Your task to perform on an android device: Set the phone to "Do not disturb". Image 0: 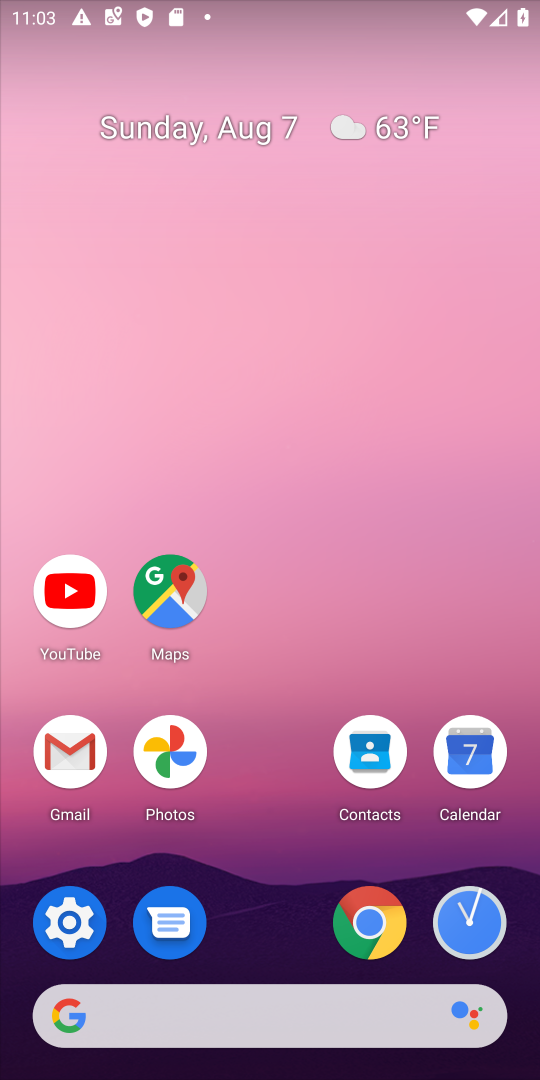
Step 0: click (72, 924)
Your task to perform on an android device: Set the phone to "Do not disturb". Image 1: 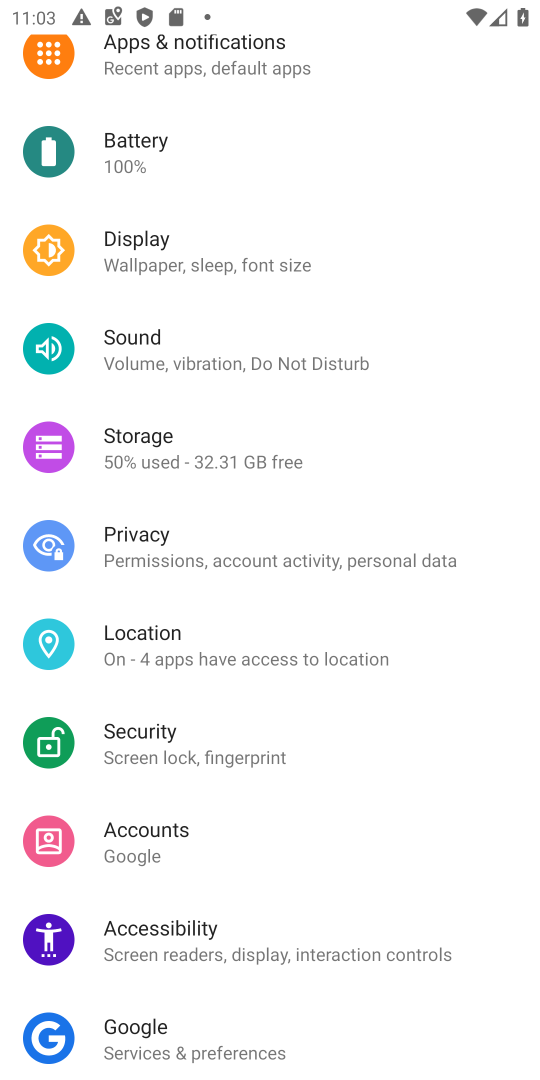
Step 1: click (130, 335)
Your task to perform on an android device: Set the phone to "Do not disturb". Image 2: 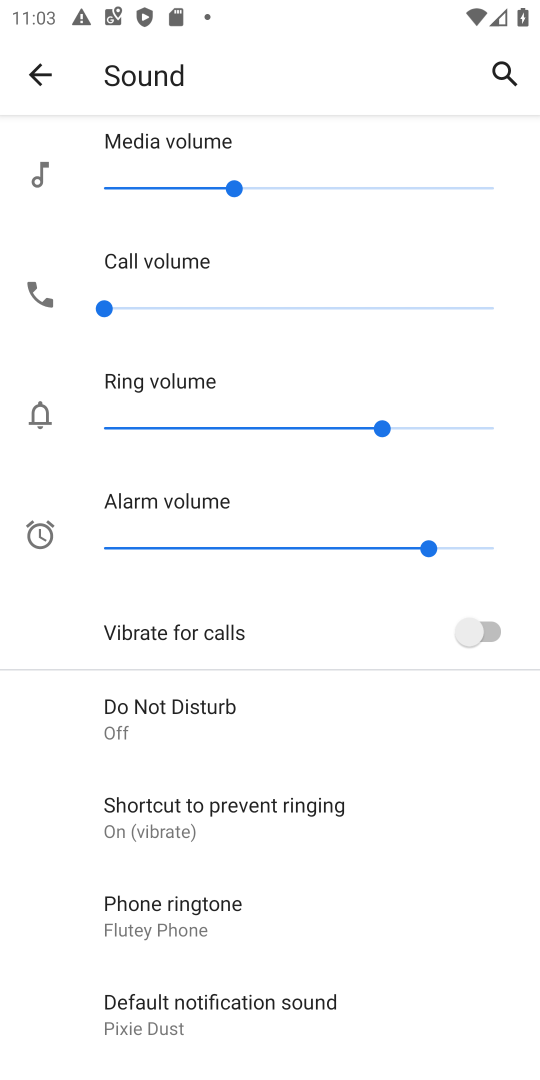
Step 2: click (168, 702)
Your task to perform on an android device: Set the phone to "Do not disturb". Image 3: 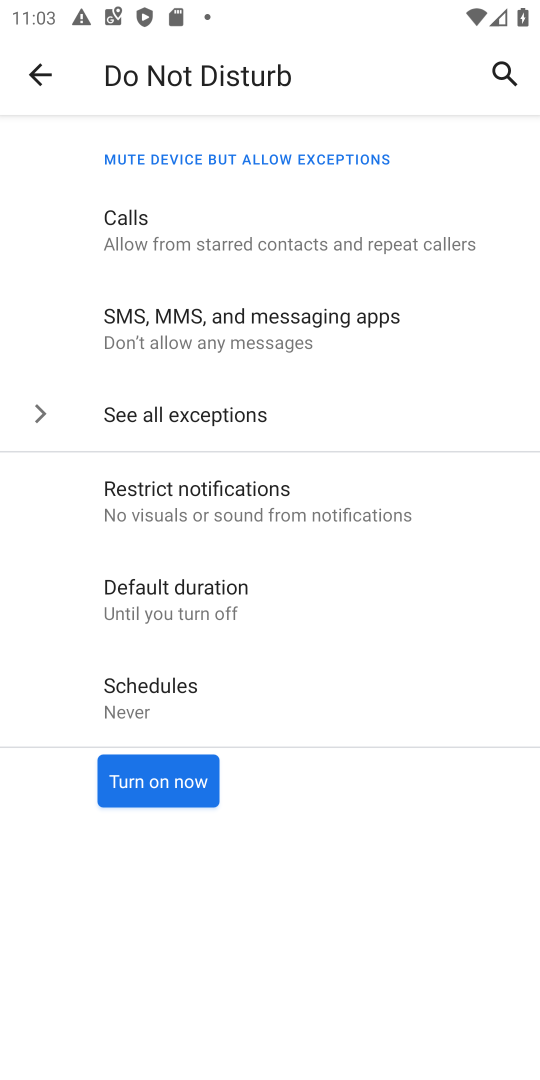
Step 3: click (181, 765)
Your task to perform on an android device: Set the phone to "Do not disturb". Image 4: 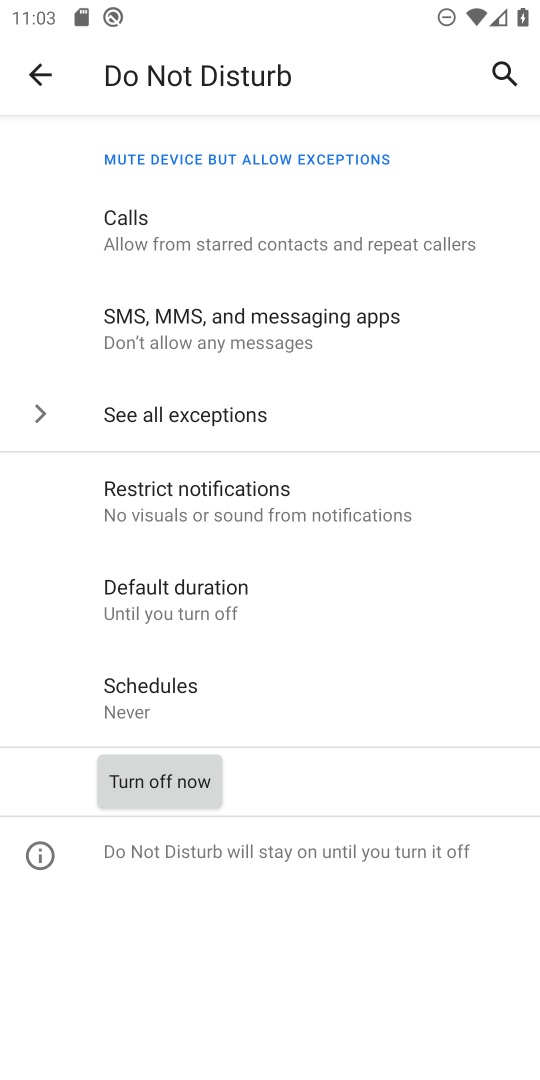
Step 4: task complete